Your task to perform on an android device: Open Chrome and go to settings Image 0: 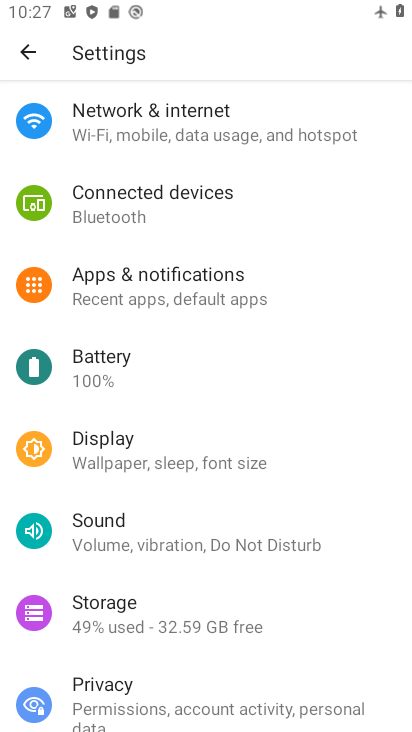
Step 0: press home button
Your task to perform on an android device: Open Chrome and go to settings Image 1: 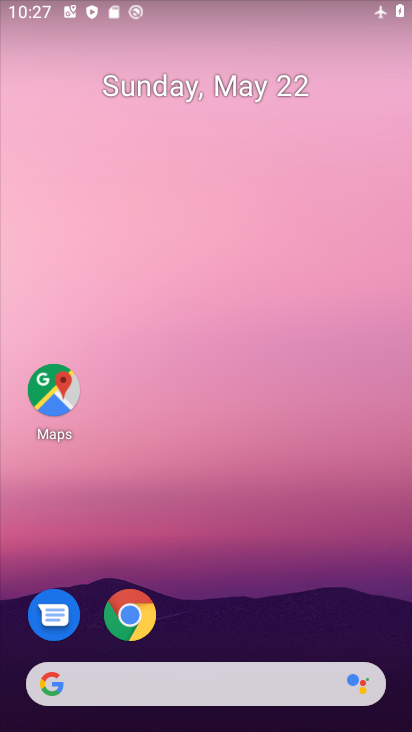
Step 1: click (130, 618)
Your task to perform on an android device: Open Chrome and go to settings Image 2: 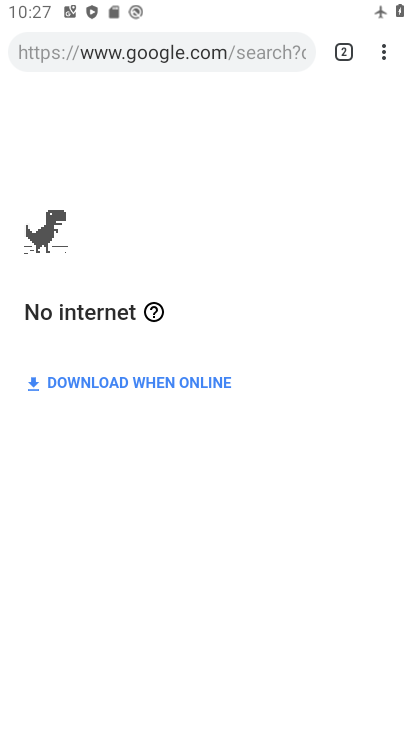
Step 2: task complete